Your task to perform on an android device: create a new album in the google photos Image 0: 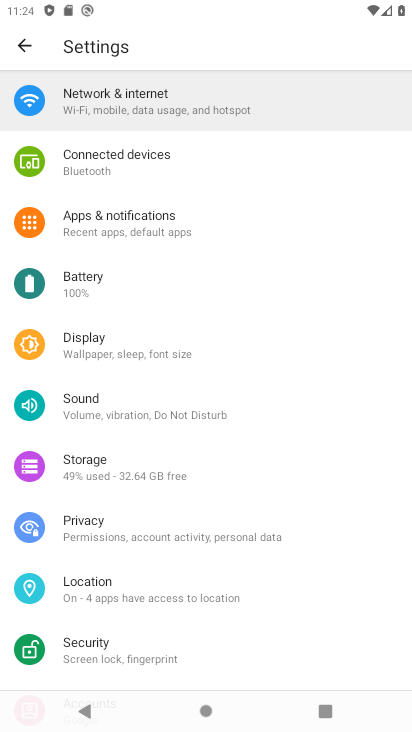
Step 0: press home button
Your task to perform on an android device: create a new album in the google photos Image 1: 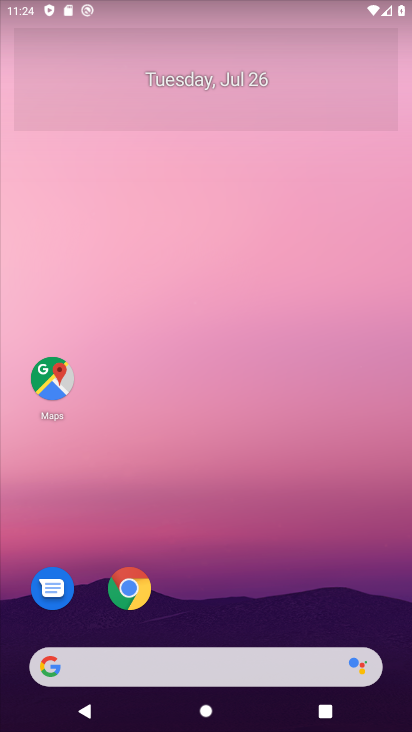
Step 1: drag from (116, 533) to (192, 215)
Your task to perform on an android device: create a new album in the google photos Image 2: 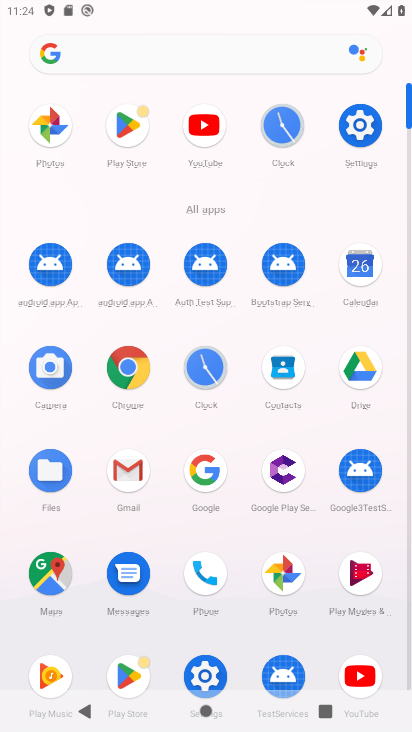
Step 2: click (283, 583)
Your task to perform on an android device: create a new album in the google photos Image 3: 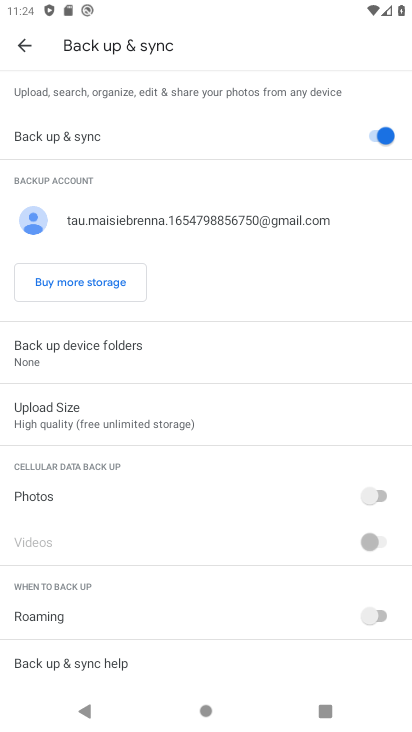
Step 3: press home button
Your task to perform on an android device: create a new album in the google photos Image 4: 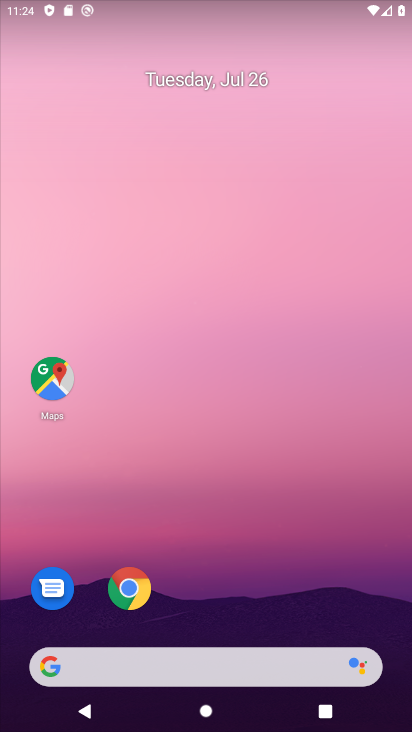
Step 4: drag from (144, 145) to (160, 31)
Your task to perform on an android device: create a new album in the google photos Image 5: 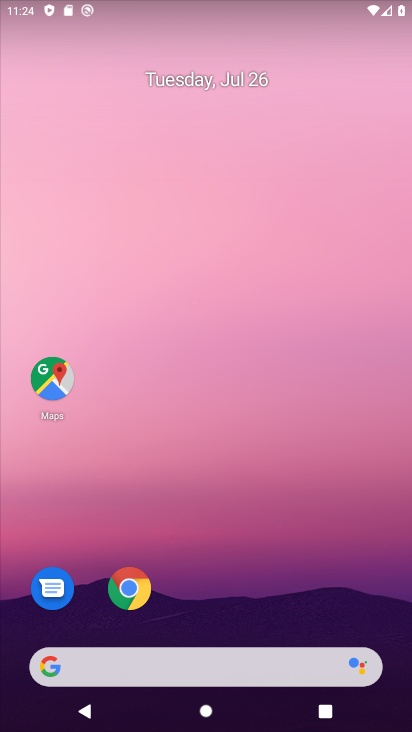
Step 5: drag from (29, 699) to (246, 45)
Your task to perform on an android device: create a new album in the google photos Image 6: 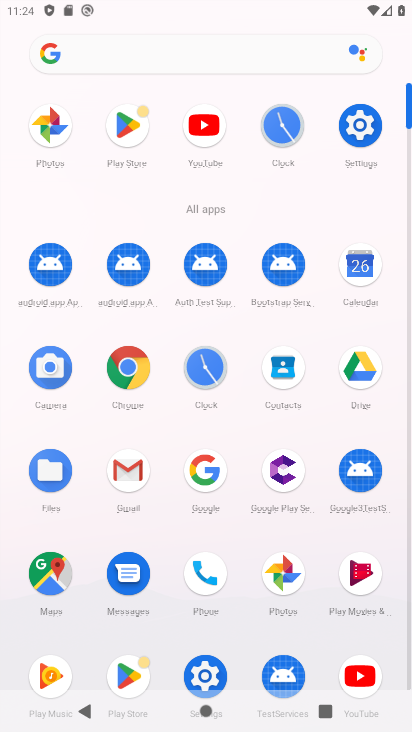
Step 6: click (288, 577)
Your task to perform on an android device: create a new album in the google photos Image 7: 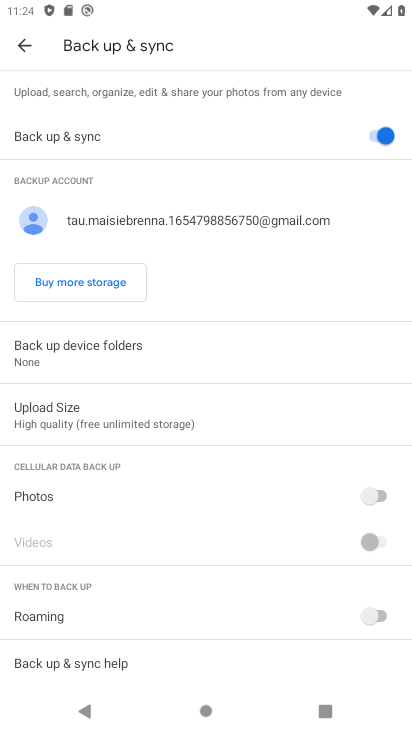
Step 7: click (19, 39)
Your task to perform on an android device: create a new album in the google photos Image 8: 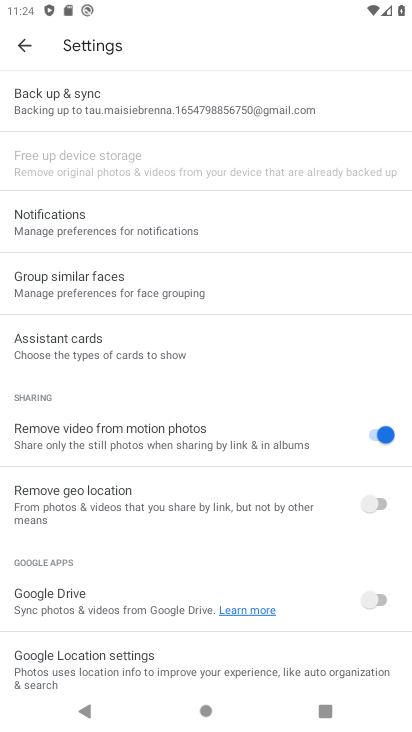
Step 8: click (19, 43)
Your task to perform on an android device: create a new album in the google photos Image 9: 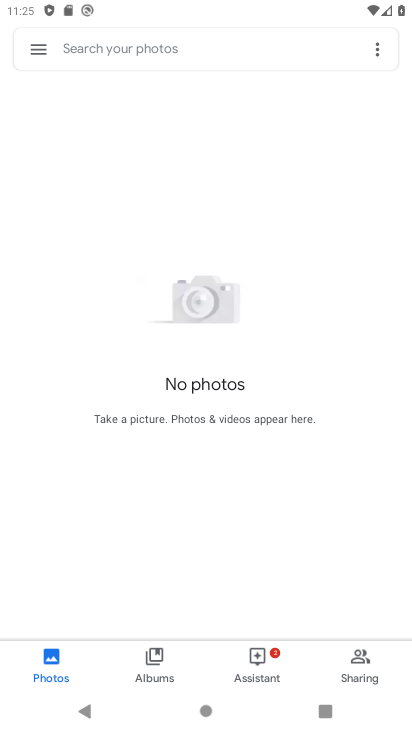
Step 9: click (141, 674)
Your task to perform on an android device: create a new album in the google photos Image 10: 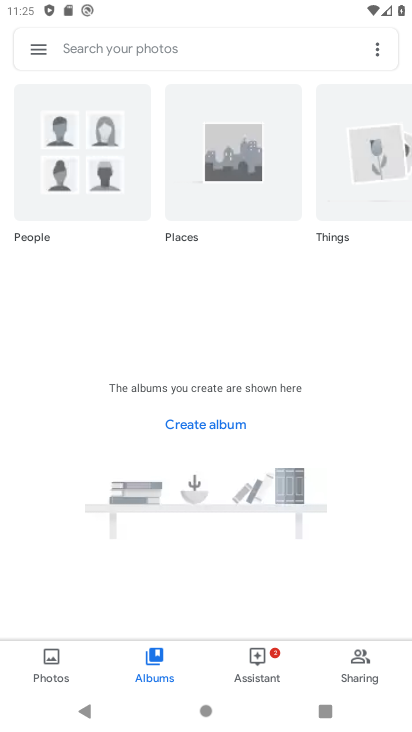
Step 10: click (47, 665)
Your task to perform on an android device: create a new album in the google photos Image 11: 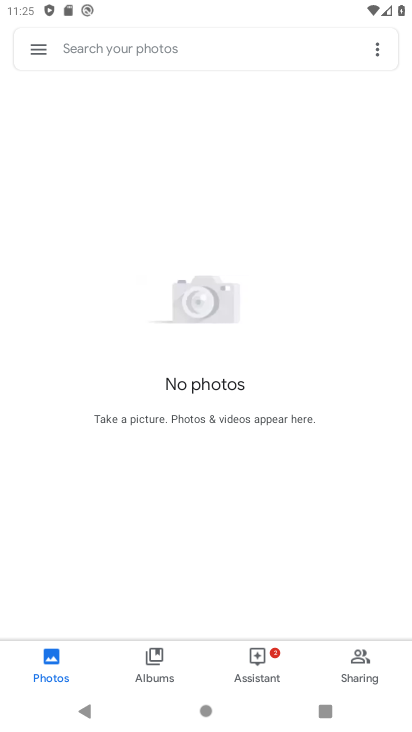
Step 11: task complete